Your task to perform on an android device: turn off sleep mode Image 0: 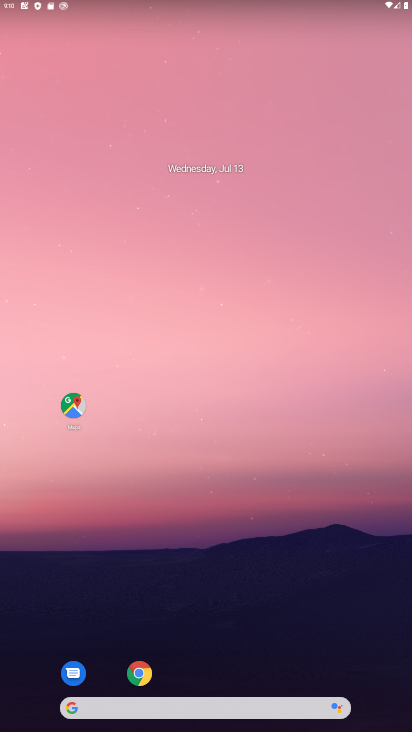
Step 0: drag from (196, 673) to (244, 69)
Your task to perform on an android device: turn off sleep mode Image 1: 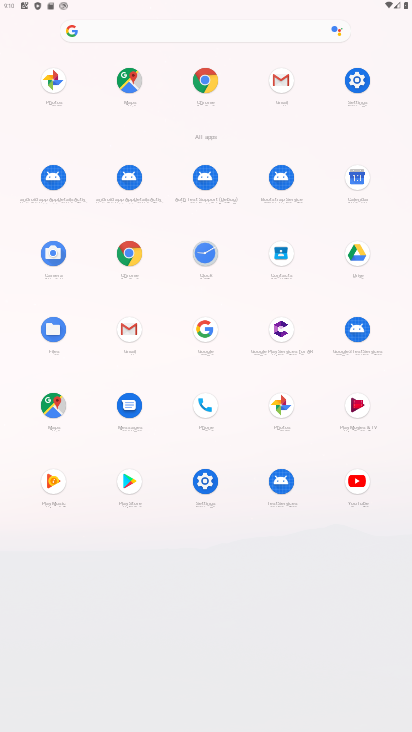
Step 1: click (373, 72)
Your task to perform on an android device: turn off sleep mode Image 2: 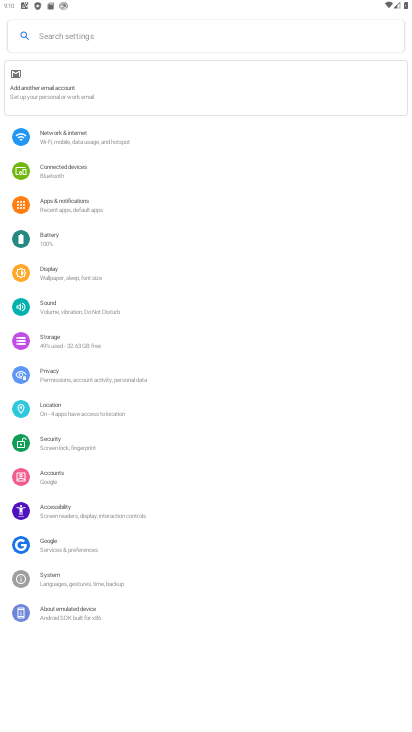
Step 2: task complete